Your task to perform on an android device: Go to Google Image 0: 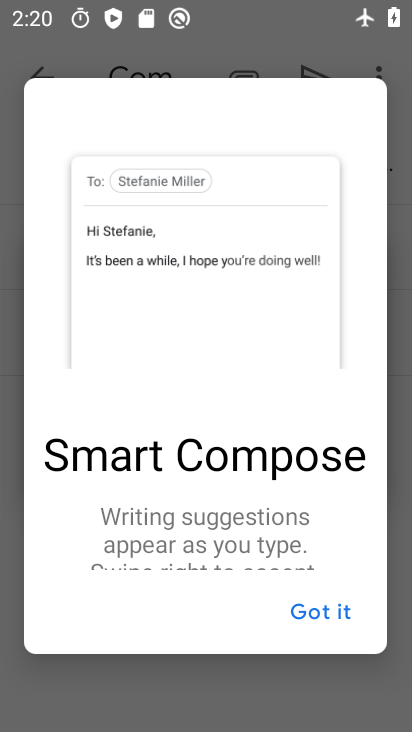
Step 0: press home button
Your task to perform on an android device: Go to Google Image 1: 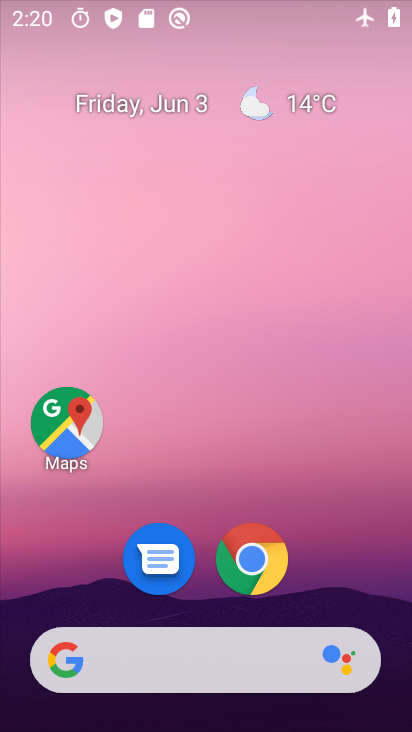
Step 1: drag from (204, 622) to (182, 21)
Your task to perform on an android device: Go to Google Image 2: 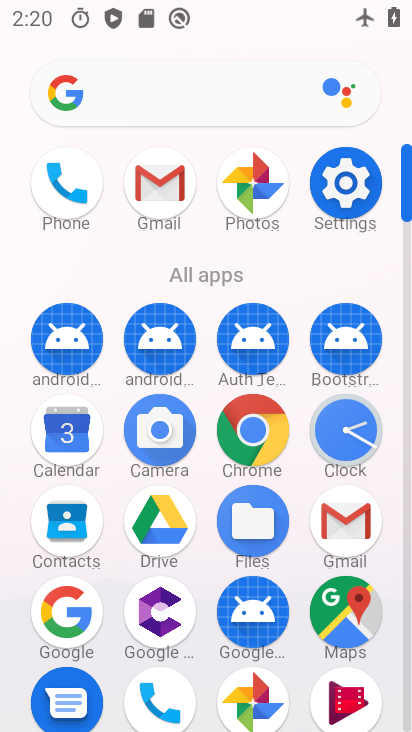
Step 2: click (63, 618)
Your task to perform on an android device: Go to Google Image 3: 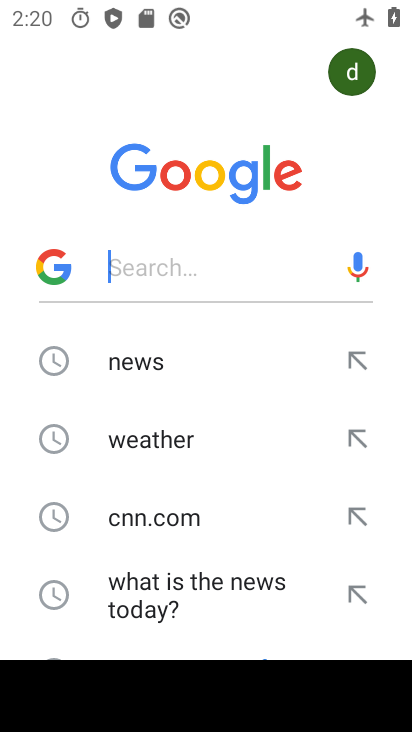
Step 3: task complete